Your task to perform on an android device: Open the map Image 0: 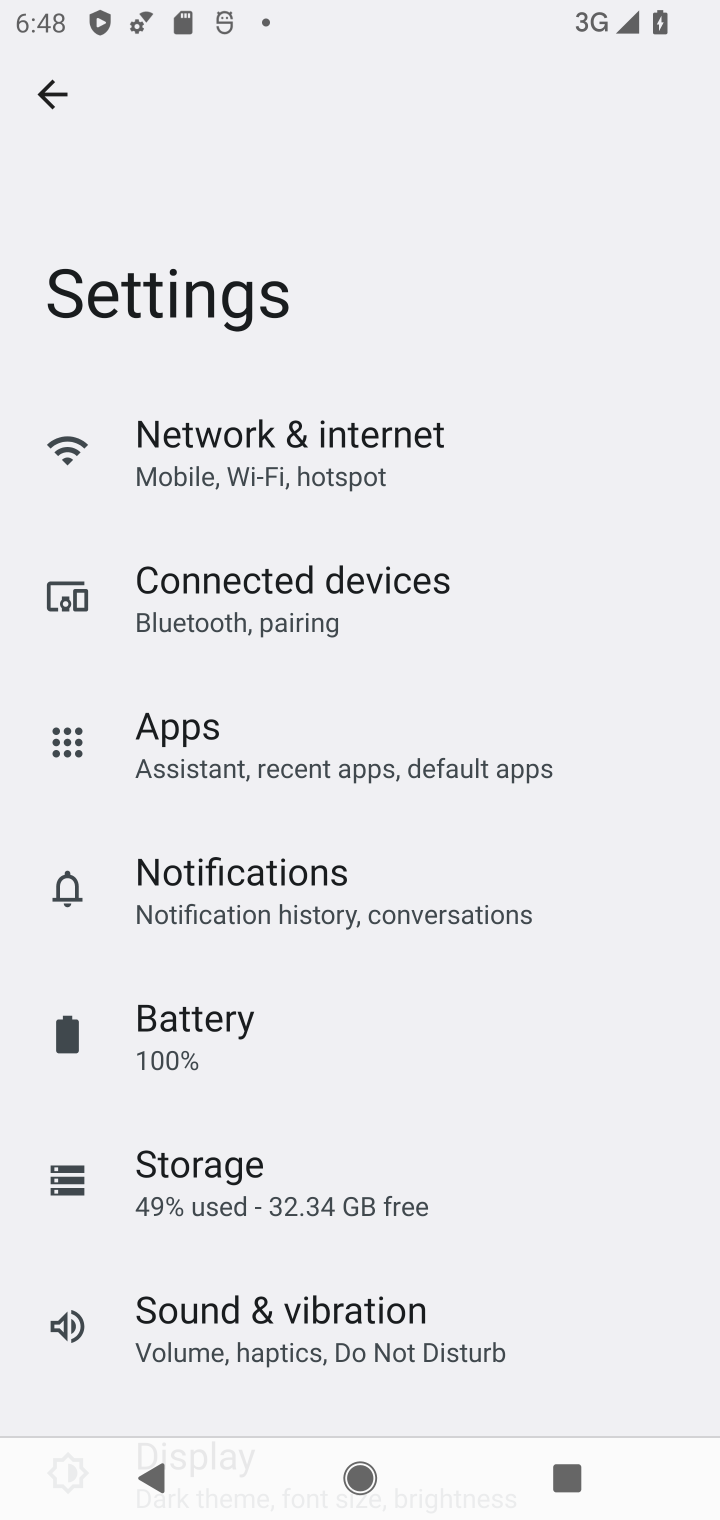
Step 0: press home button
Your task to perform on an android device: Open the map Image 1: 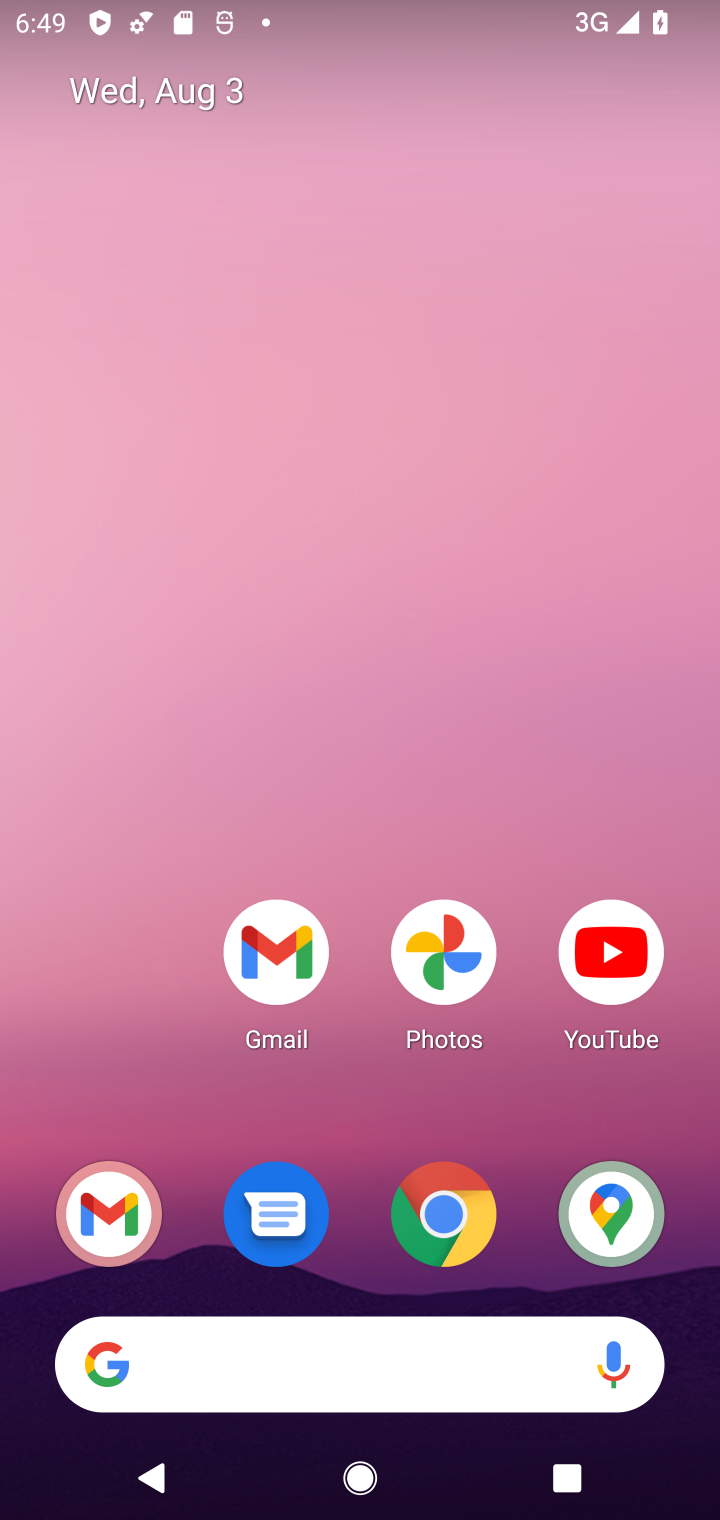
Step 1: drag from (79, 1082) to (40, 664)
Your task to perform on an android device: Open the map Image 2: 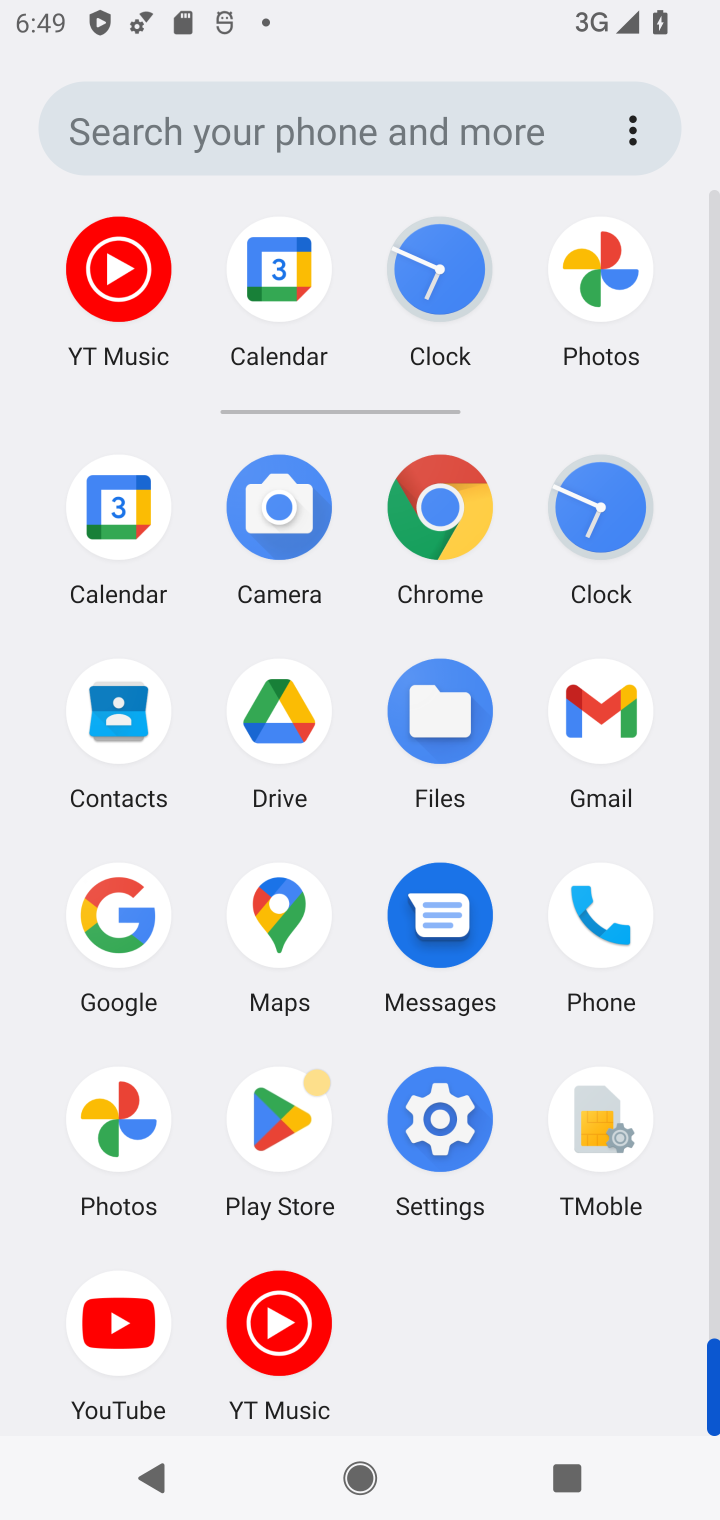
Step 2: click (294, 919)
Your task to perform on an android device: Open the map Image 3: 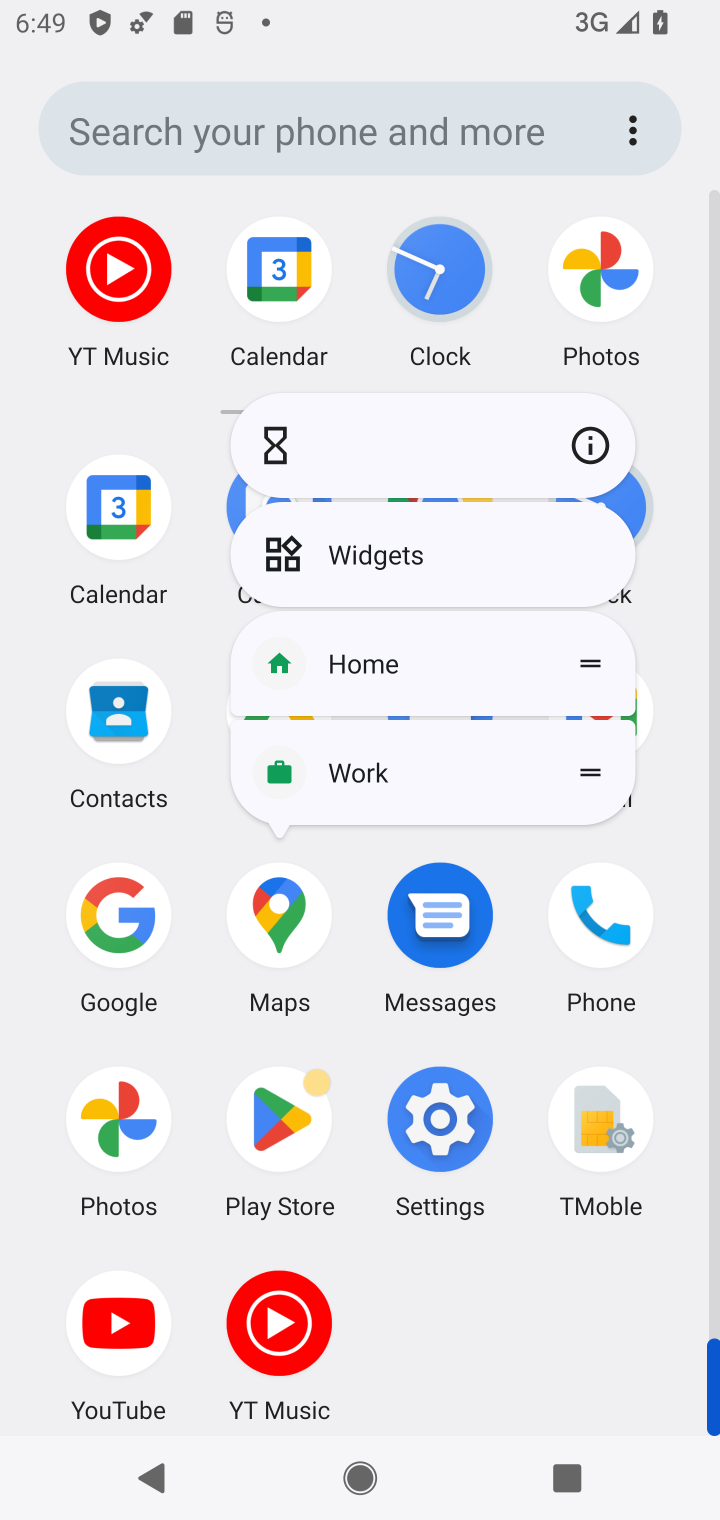
Step 3: click (275, 942)
Your task to perform on an android device: Open the map Image 4: 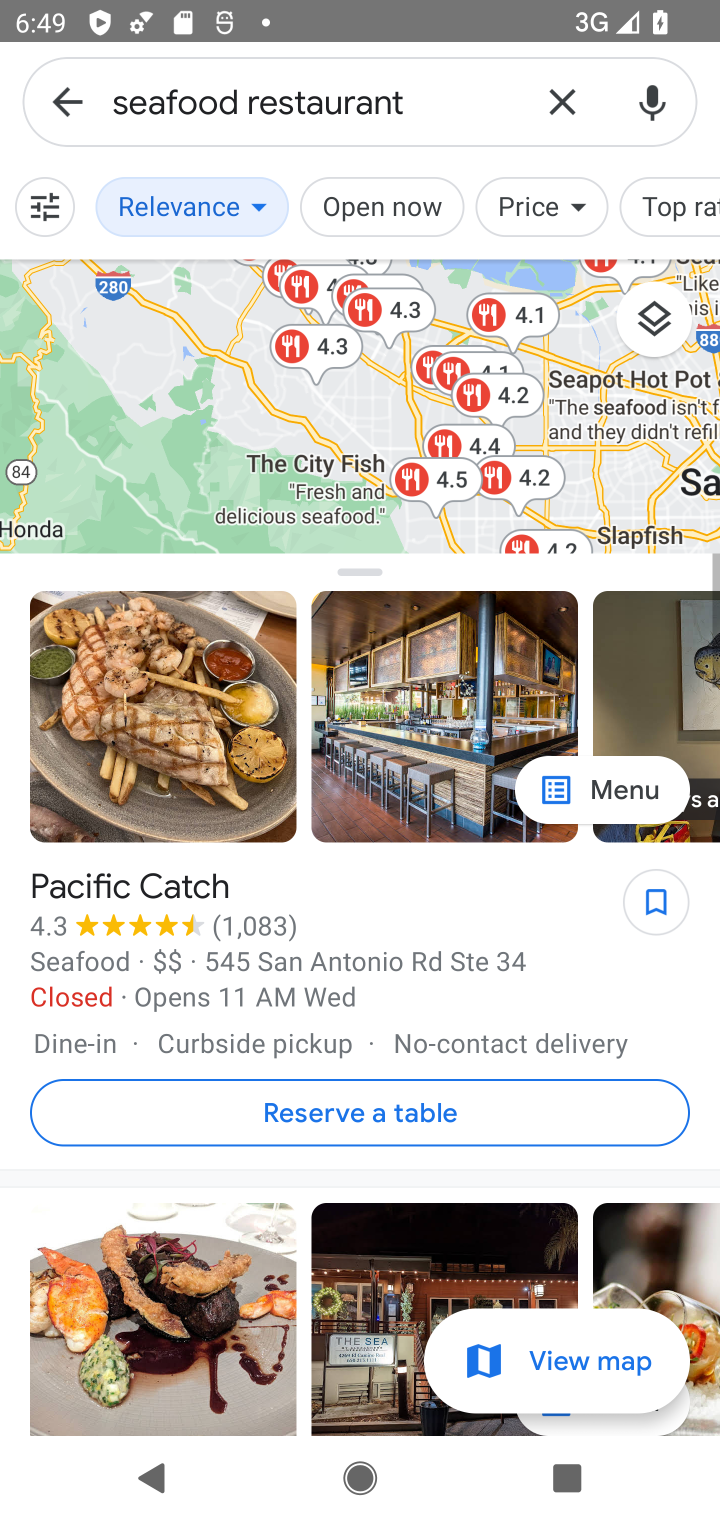
Step 4: task complete